Your task to perform on an android device: change your default location settings in chrome Image 0: 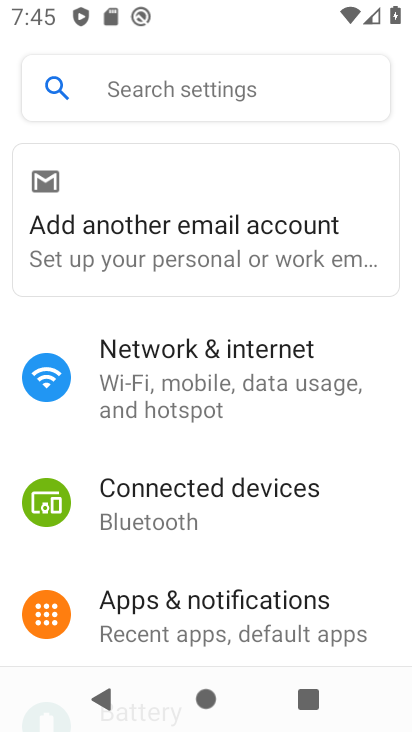
Step 0: press home button
Your task to perform on an android device: change your default location settings in chrome Image 1: 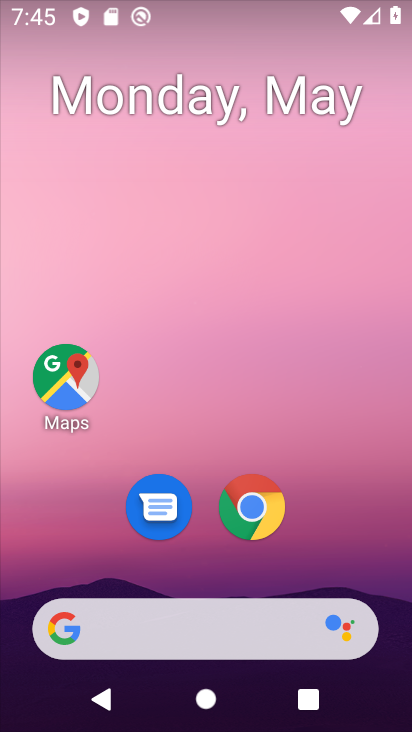
Step 1: click (252, 505)
Your task to perform on an android device: change your default location settings in chrome Image 2: 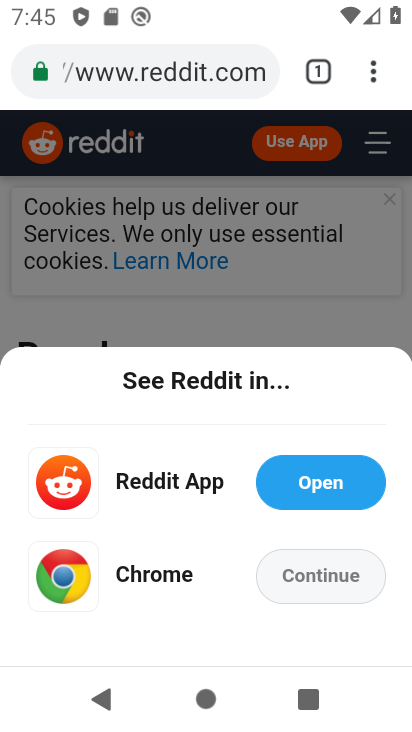
Step 2: drag from (376, 69) to (234, 495)
Your task to perform on an android device: change your default location settings in chrome Image 3: 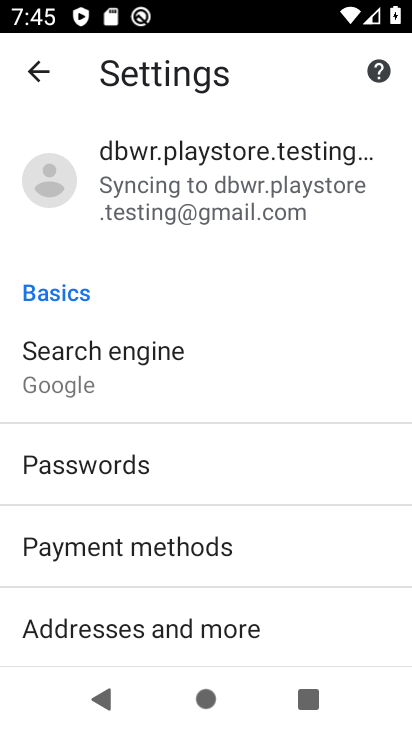
Step 3: click (223, 385)
Your task to perform on an android device: change your default location settings in chrome Image 4: 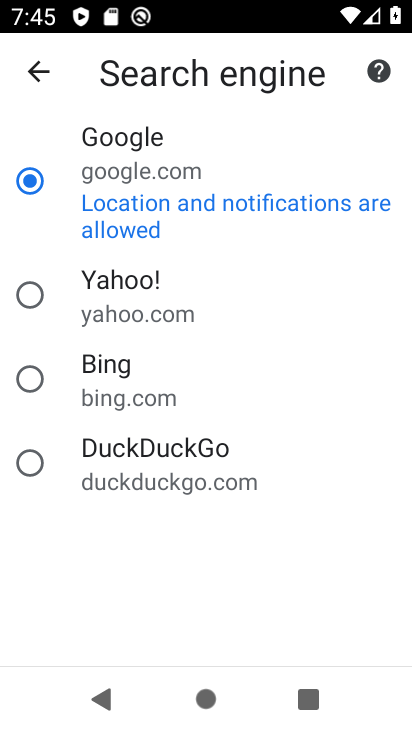
Step 4: click (39, 60)
Your task to perform on an android device: change your default location settings in chrome Image 5: 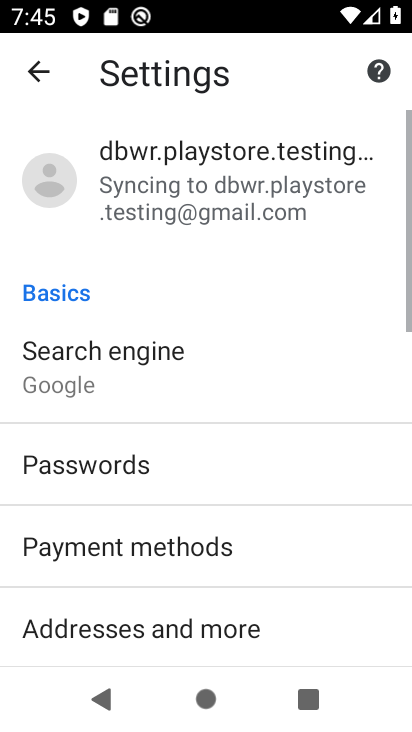
Step 5: drag from (205, 500) to (256, 155)
Your task to perform on an android device: change your default location settings in chrome Image 6: 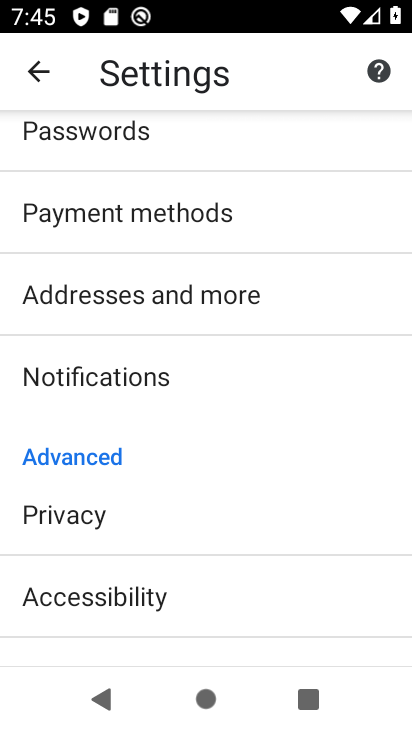
Step 6: drag from (237, 485) to (263, 306)
Your task to perform on an android device: change your default location settings in chrome Image 7: 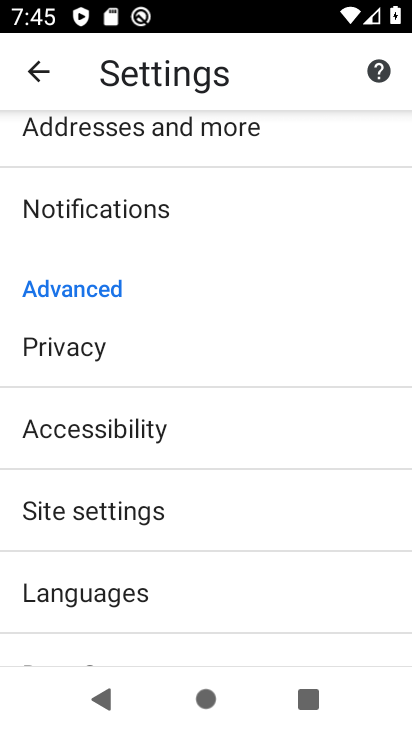
Step 7: click (147, 503)
Your task to perform on an android device: change your default location settings in chrome Image 8: 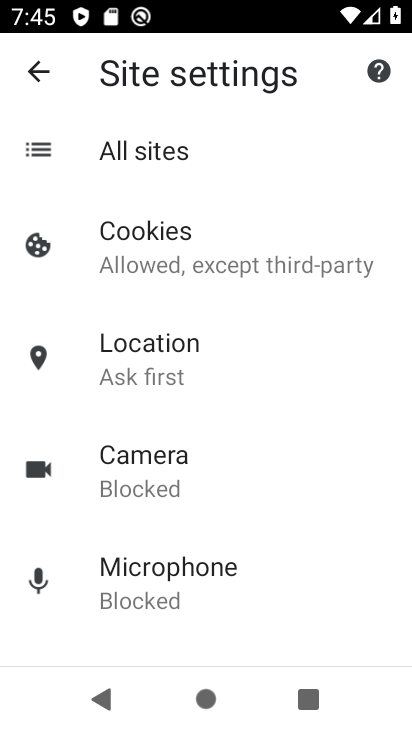
Step 8: click (212, 362)
Your task to perform on an android device: change your default location settings in chrome Image 9: 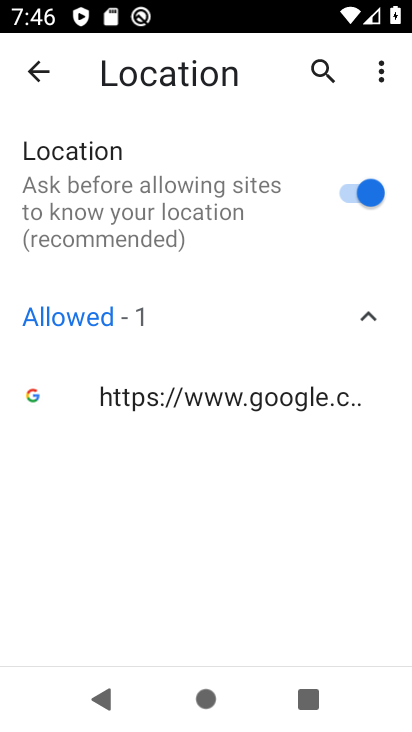
Step 9: click (361, 202)
Your task to perform on an android device: change your default location settings in chrome Image 10: 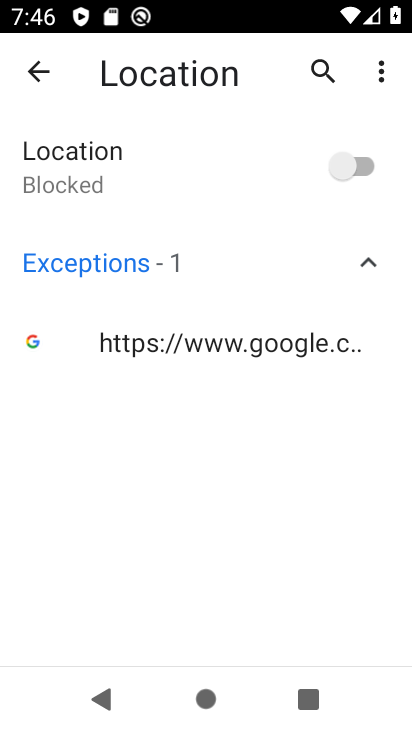
Step 10: task complete